Your task to perform on an android device: clear history in the chrome app Image 0: 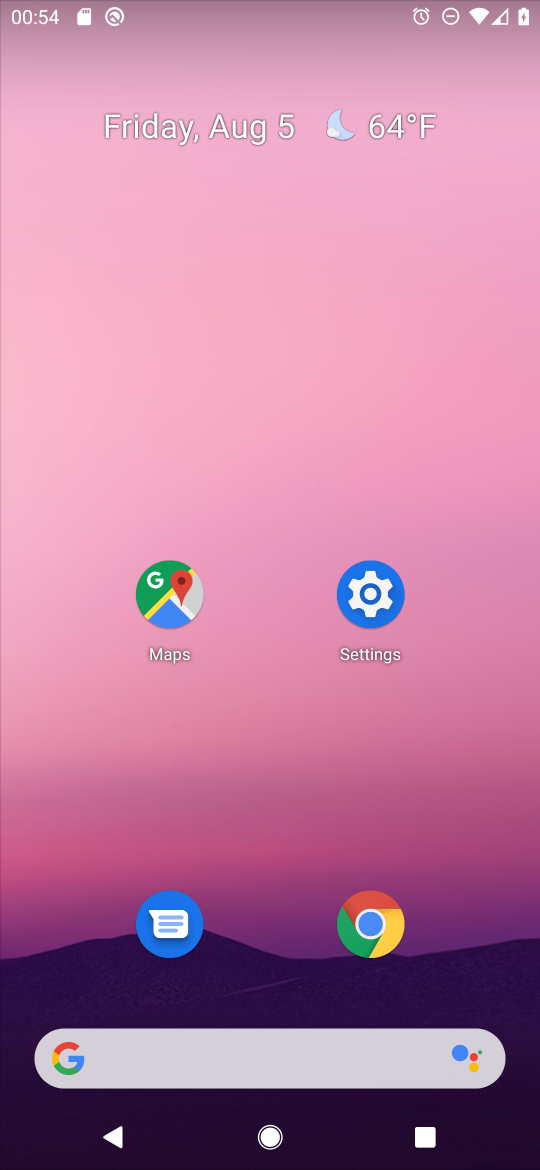
Step 0: click (377, 918)
Your task to perform on an android device: clear history in the chrome app Image 1: 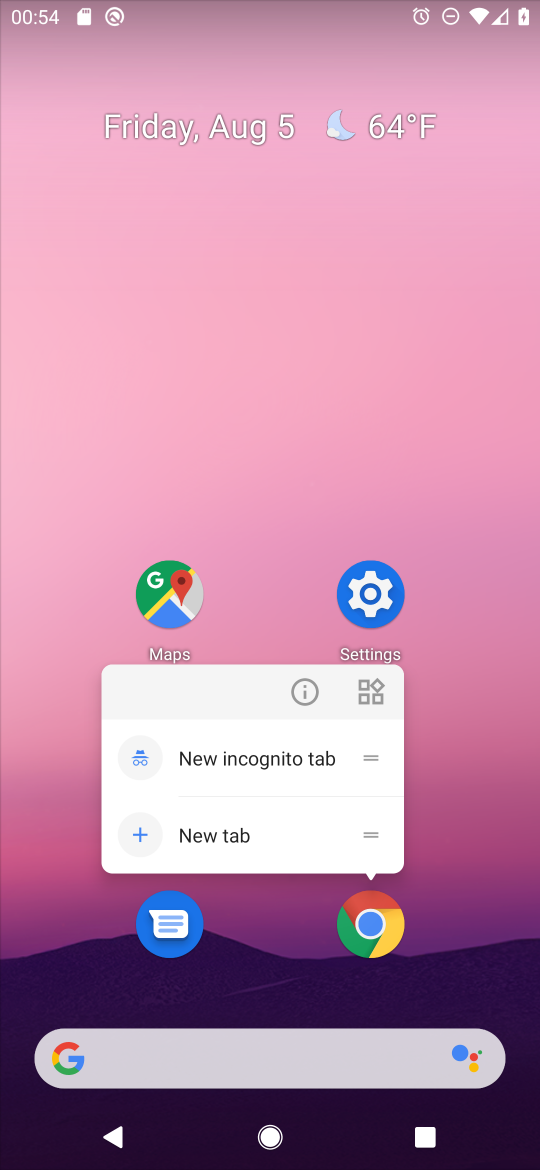
Step 1: click (380, 915)
Your task to perform on an android device: clear history in the chrome app Image 2: 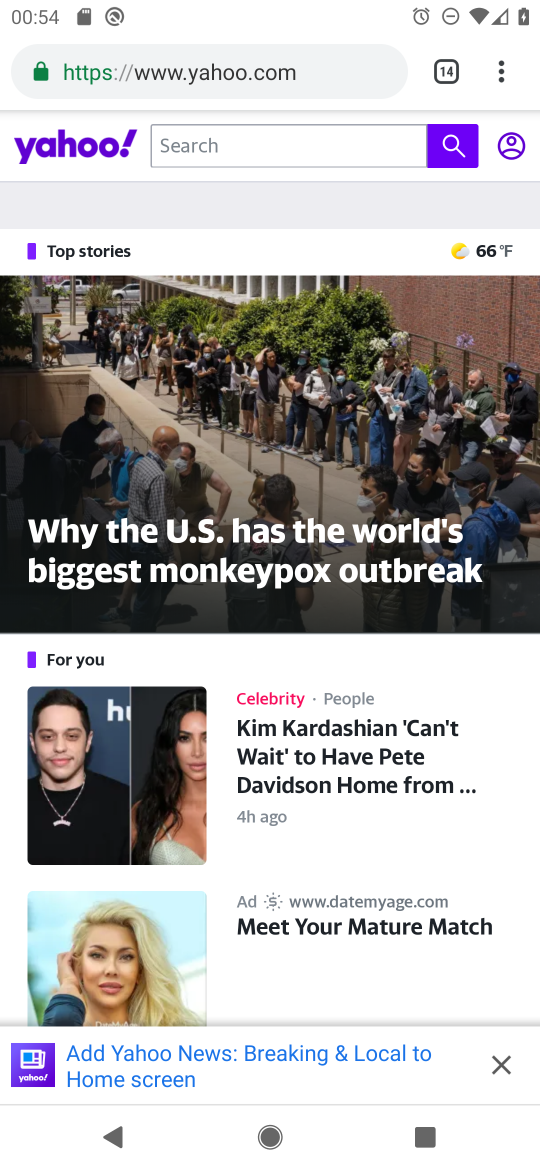
Step 2: drag from (503, 69) to (275, 415)
Your task to perform on an android device: clear history in the chrome app Image 3: 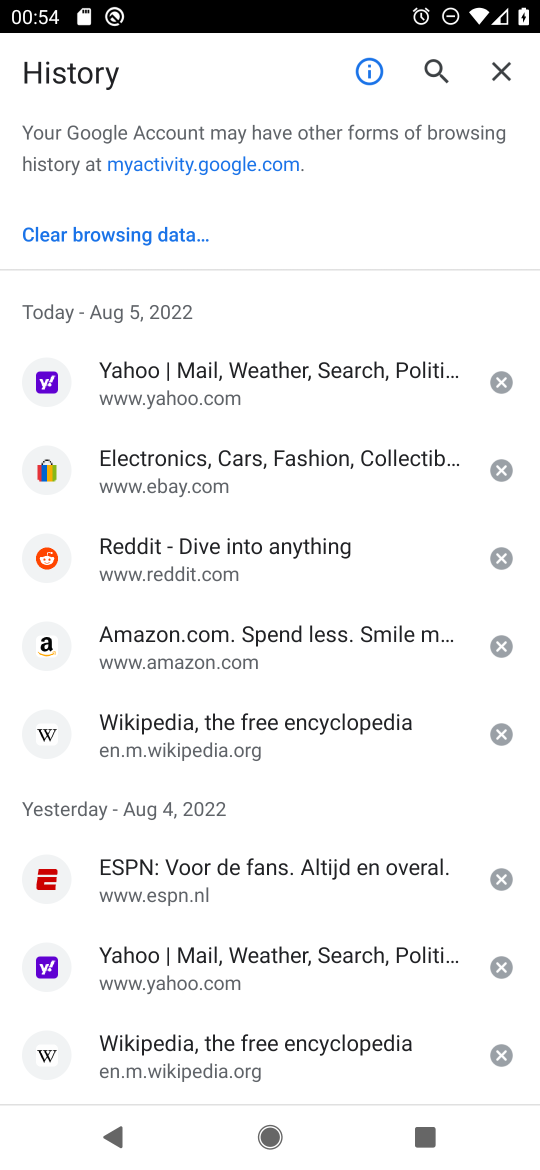
Step 3: click (123, 236)
Your task to perform on an android device: clear history in the chrome app Image 4: 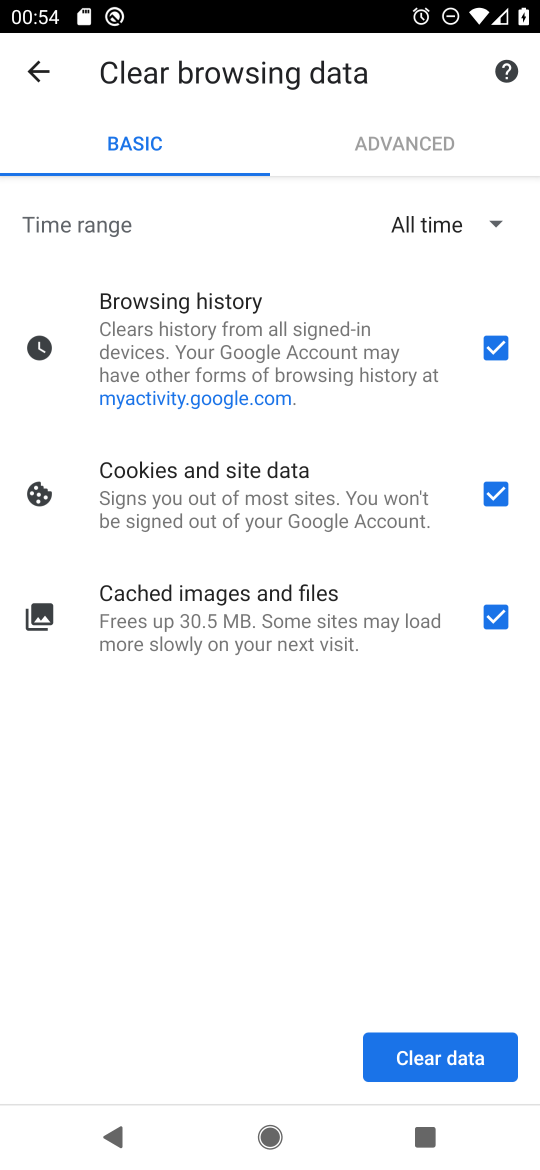
Step 4: click (463, 1064)
Your task to perform on an android device: clear history in the chrome app Image 5: 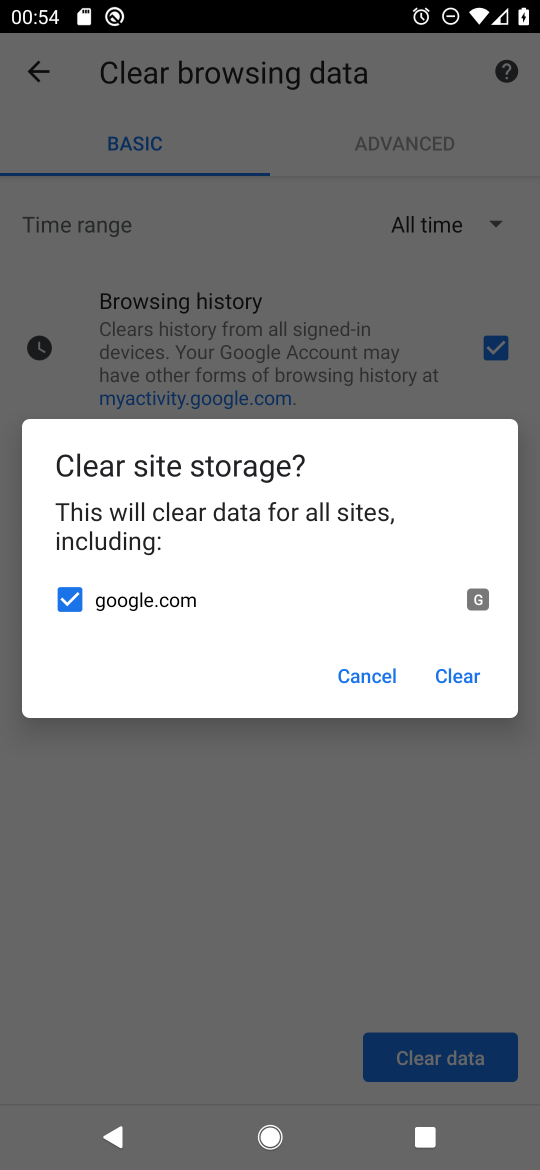
Step 5: click (465, 667)
Your task to perform on an android device: clear history in the chrome app Image 6: 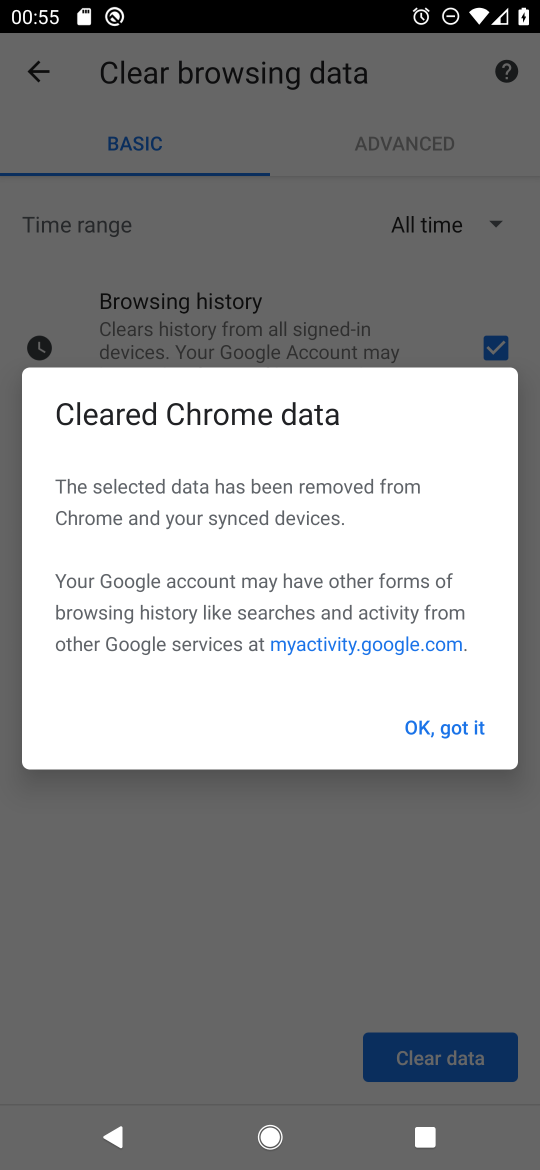
Step 6: click (490, 731)
Your task to perform on an android device: clear history in the chrome app Image 7: 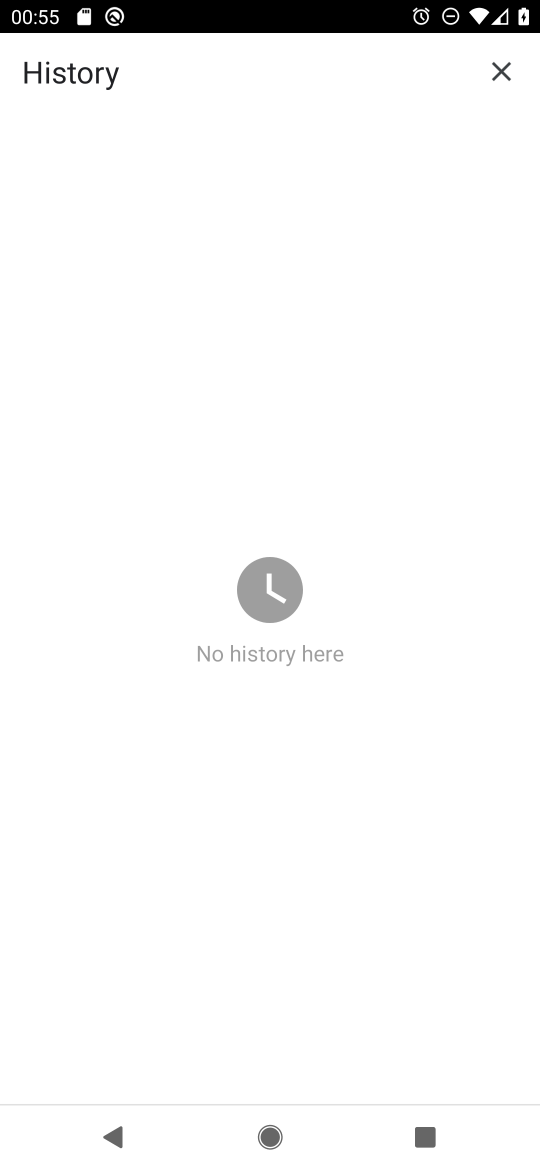
Step 7: task complete